Your task to perform on an android device: turn on bluetooth scan Image 0: 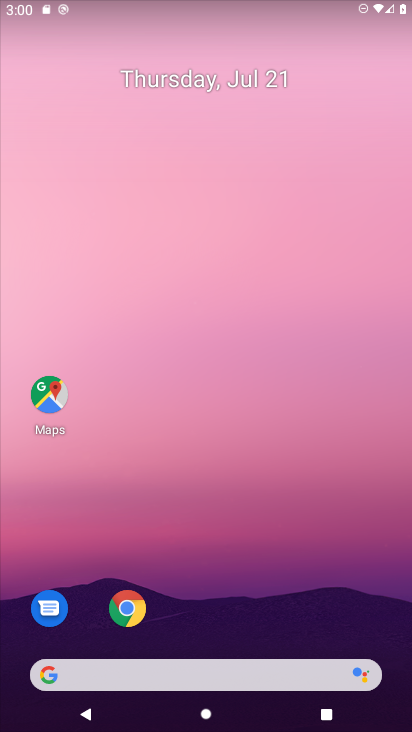
Step 0: drag from (235, 576) to (223, 150)
Your task to perform on an android device: turn on bluetooth scan Image 1: 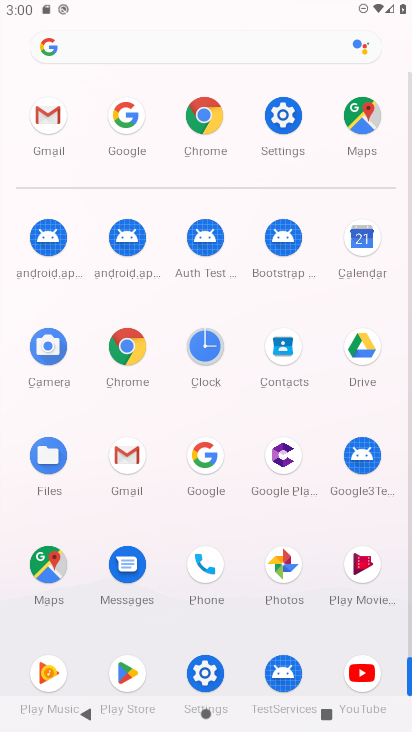
Step 1: click (280, 126)
Your task to perform on an android device: turn on bluetooth scan Image 2: 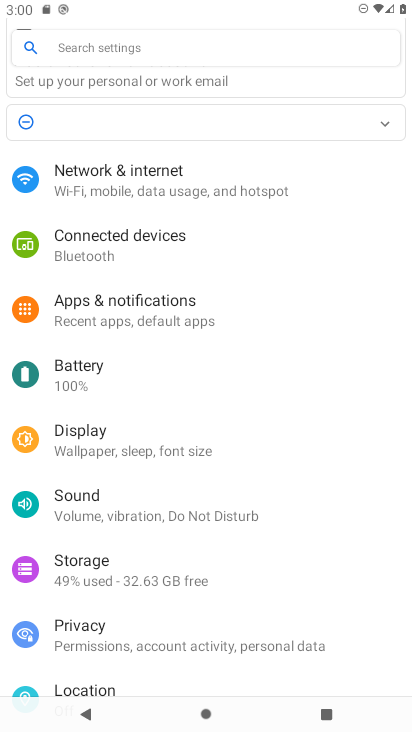
Step 2: click (110, 676)
Your task to perform on an android device: turn on bluetooth scan Image 3: 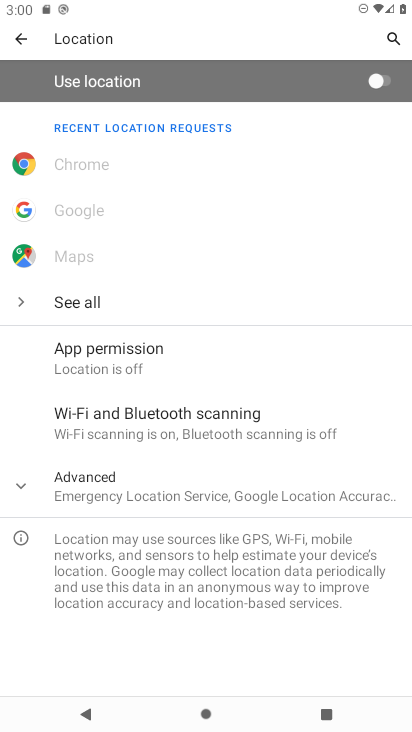
Step 3: click (194, 418)
Your task to perform on an android device: turn on bluetooth scan Image 4: 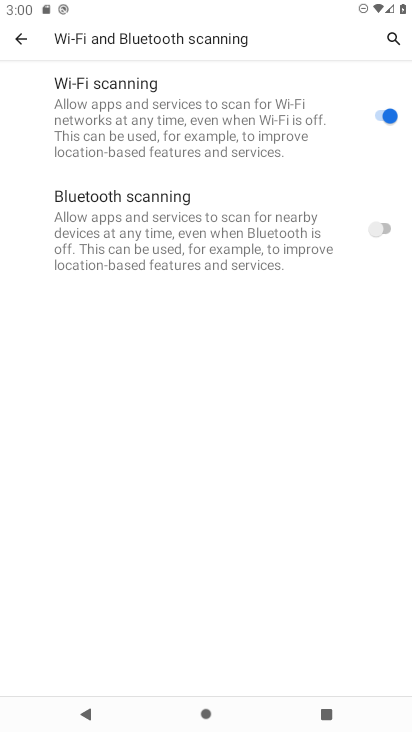
Step 4: click (385, 235)
Your task to perform on an android device: turn on bluetooth scan Image 5: 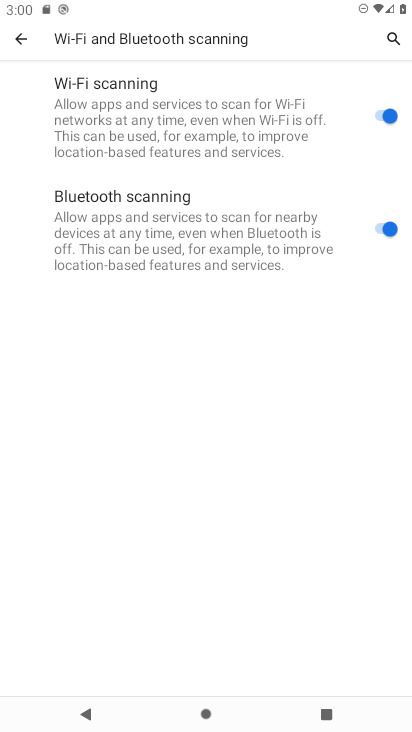
Step 5: task complete